Your task to perform on an android device: open app "ZOOM Cloud Meetings" (install if not already installed) and go to login screen Image 0: 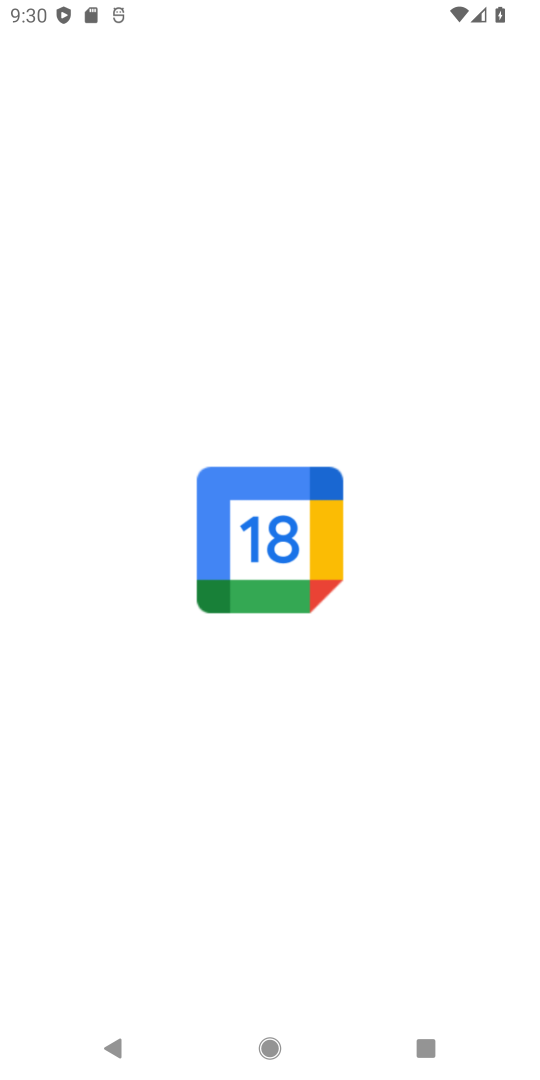
Step 0: press home button
Your task to perform on an android device: open app "ZOOM Cloud Meetings" (install if not already installed) and go to login screen Image 1: 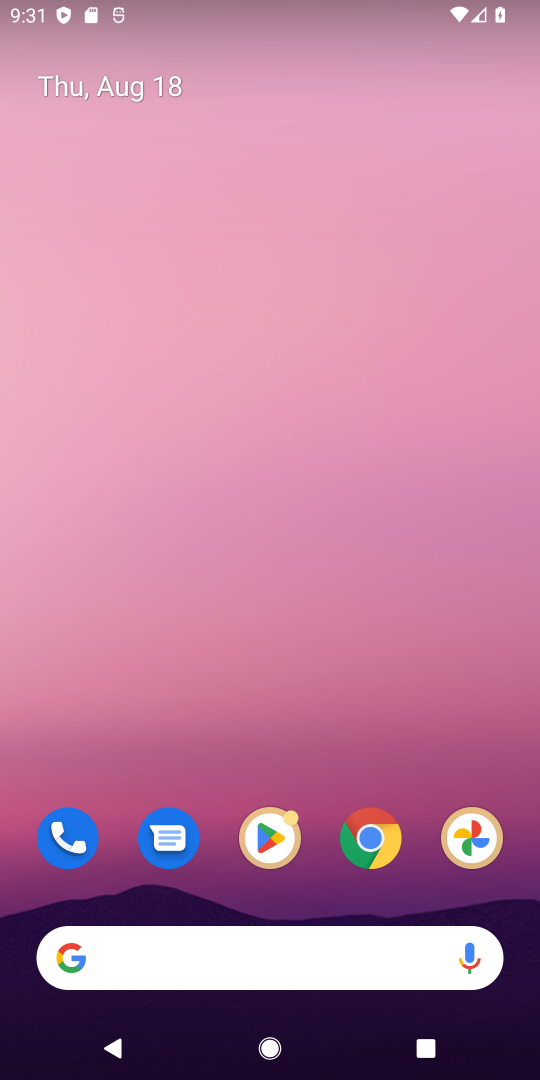
Step 1: task complete